Your task to perform on an android device: Go to Google Image 0: 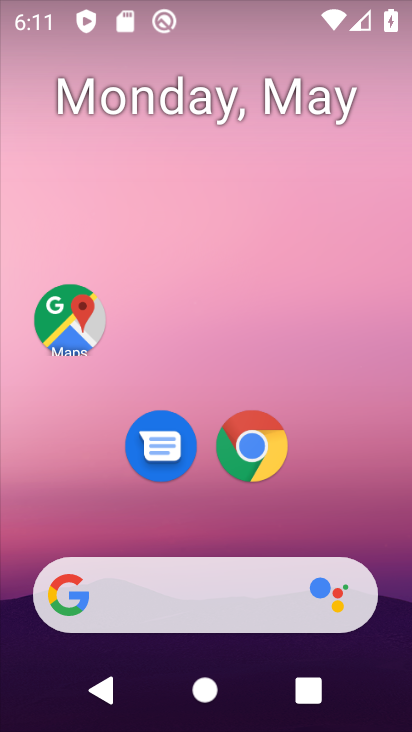
Step 0: click (75, 591)
Your task to perform on an android device: Go to Google Image 1: 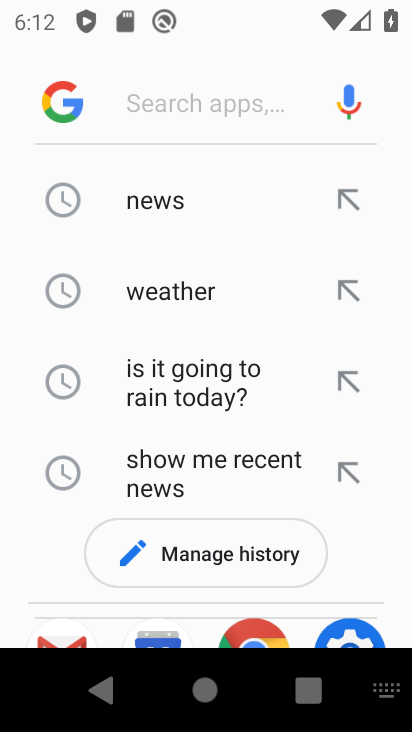
Step 1: click (61, 96)
Your task to perform on an android device: Go to Google Image 2: 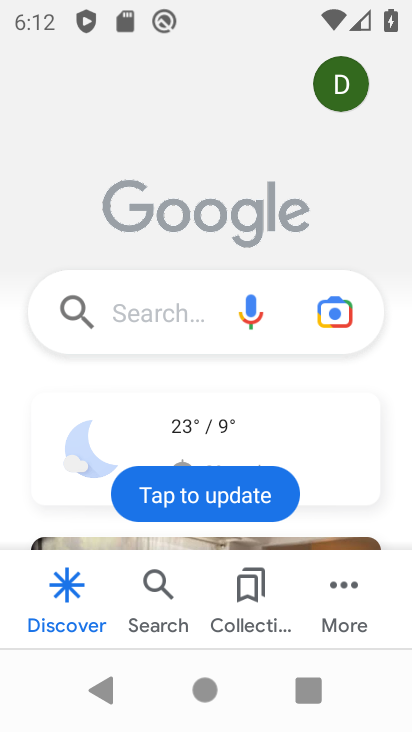
Step 2: task complete